Your task to perform on an android device: turn off priority inbox in the gmail app Image 0: 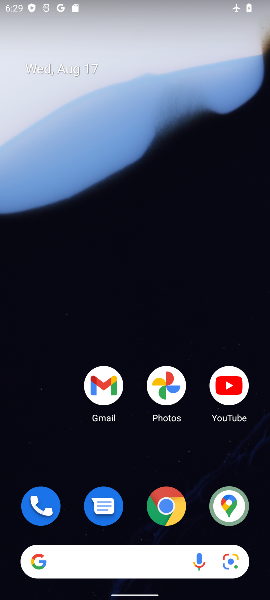
Step 0: drag from (135, 457) to (154, 49)
Your task to perform on an android device: turn off priority inbox in the gmail app Image 1: 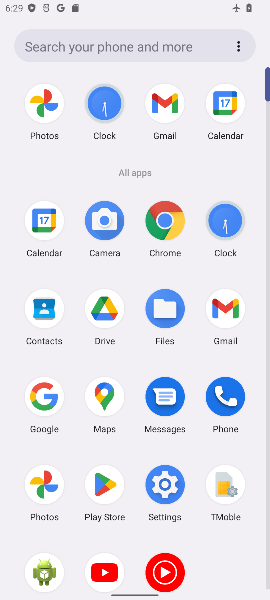
Step 1: click (221, 312)
Your task to perform on an android device: turn off priority inbox in the gmail app Image 2: 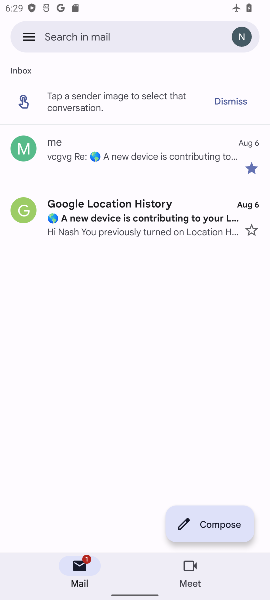
Step 2: click (25, 34)
Your task to perform on an android device: turn off priority inbox in the gmail app Image 3: 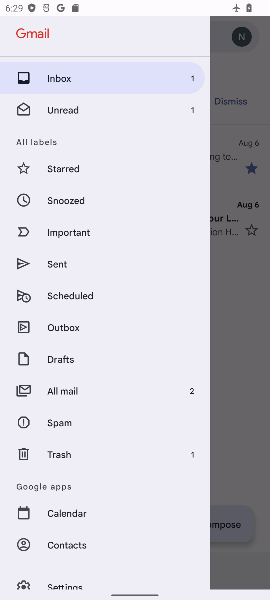
Step 3: drag from (62, 564) to (179, 124)
Your task to perform on an android device: turn off priority inbox in the gmail app Image 4: 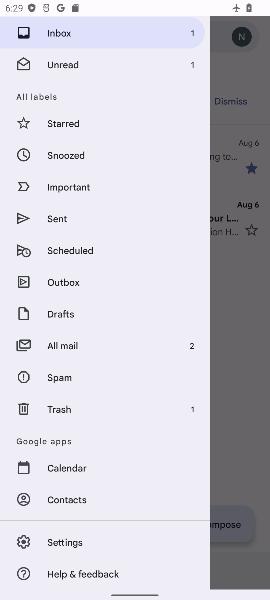
Step 4: click (63, 541)
Your task to perform on an android device: turn off priority inbox in the gmail app Image 5: 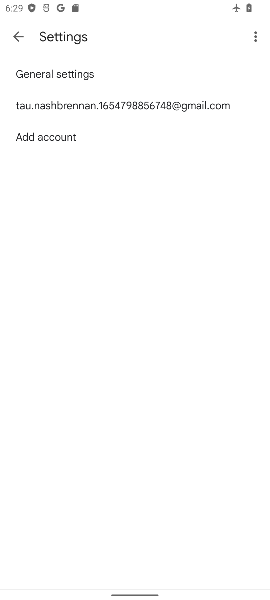
Step 5: click (140, 115)
Your task to perform on an android device: turn off priority inbox in the gmail app Image 6: 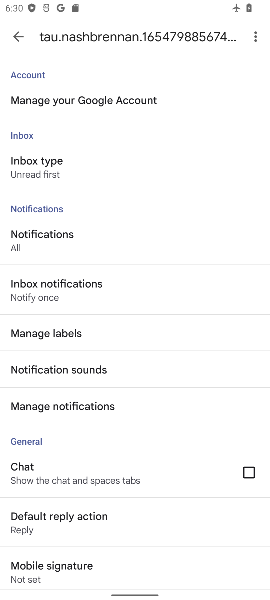
Step 6: drag from (101, 98) to (134, 411)
Your task to perform on an android device: turn off priority inbox in the gmail app Image 7: 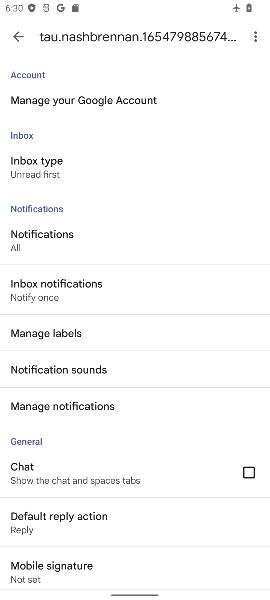
Step 7: click (46, 164)
Your task to perform on an android device: turn off priority inbox in the gmail app Image 8: 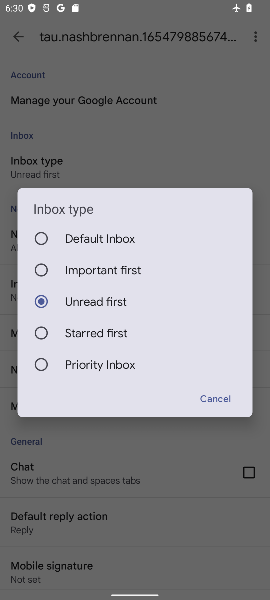
Step 8: task complete